Your task to perform on an android device: Go to Reddit.com Image 0: 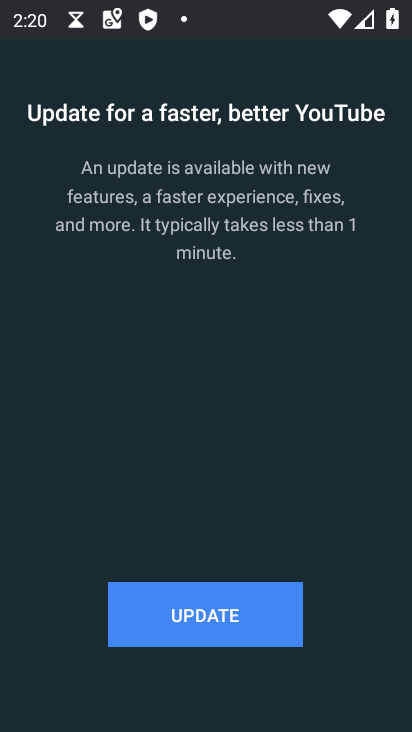
Step 0: press back button
Your task to perform on an android device: Go to Reddit.com Image 1: 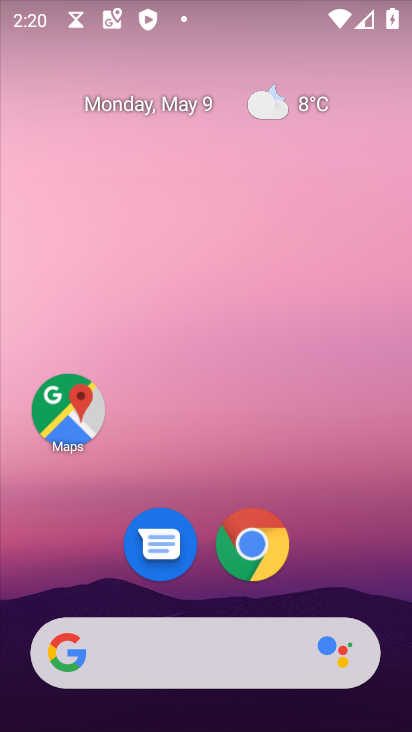
Step 1: click (231, 563)
Your task to perform on an android device: Go to Reddit.com Image 2: 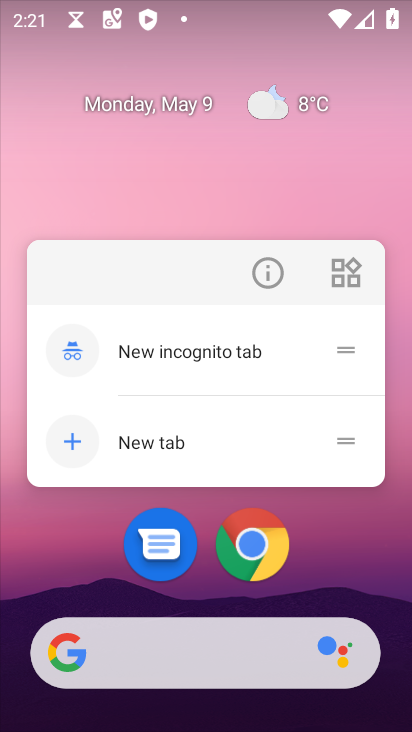
Step 2: click (291, 563)
Your task to perform on an android device: Go to Reddit.com Image 3: 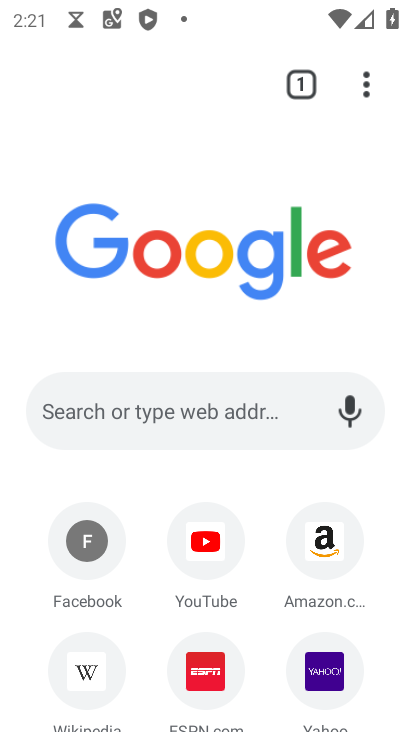
Step 3: click (195, 404)
Your task to perform on an android device: Go to Reddit.com Image 4: 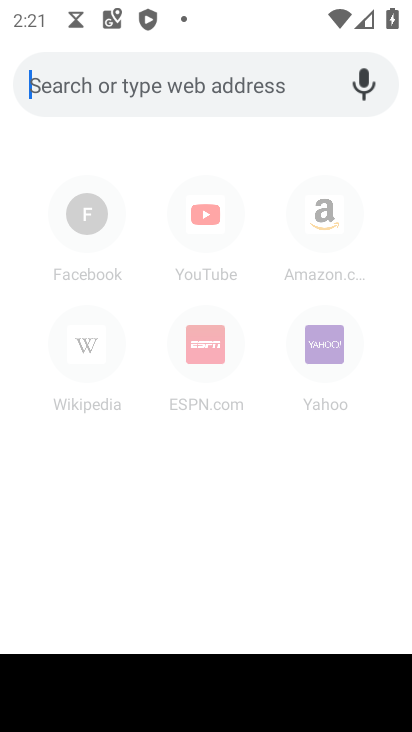
Step 4: type "reddit .com"
Your task to perform on an android device: Go to Reddit.com Image 5: 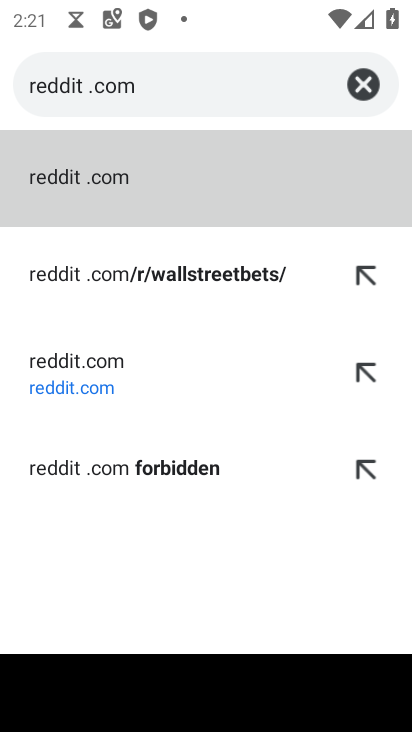
Step 5: click (112, 364)
Your task to perform on an android device: Go to Reddit.com Image 6: 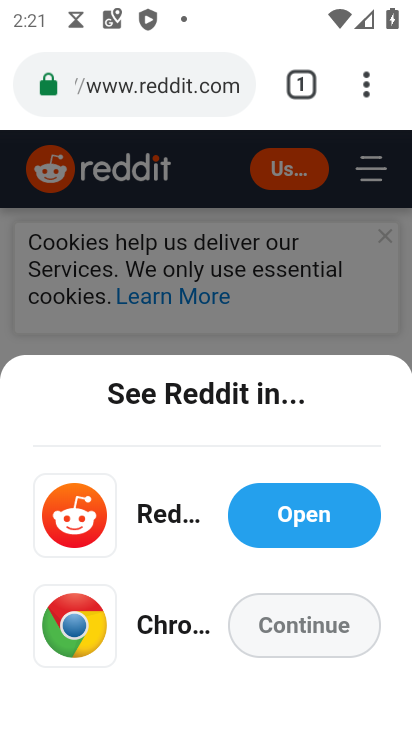
Step 6: click (266, 628)
Your task to perform on an android device: Go to Reddit.com Image 7: 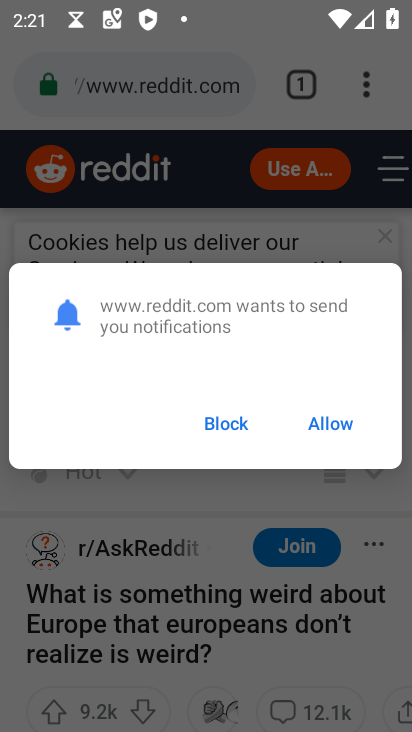
Step 7: drag from (266, 628) to (287, 262)
Your task to perform on an android device: Go to Reddit.com Image 8: 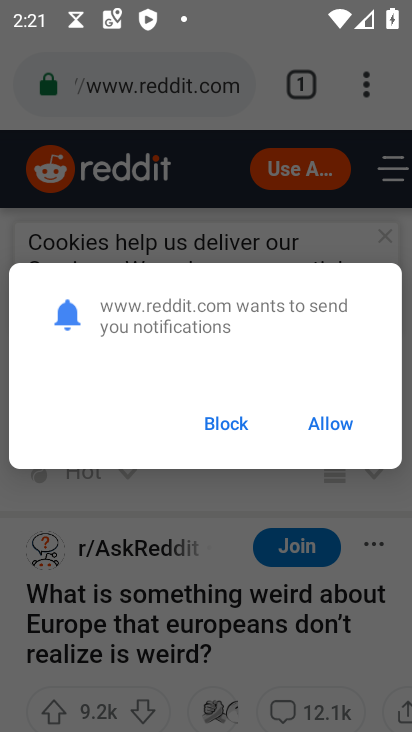
Step 8: click (348, 420)
Your task to perform on an android device: Go to Reddit.com Image 9: 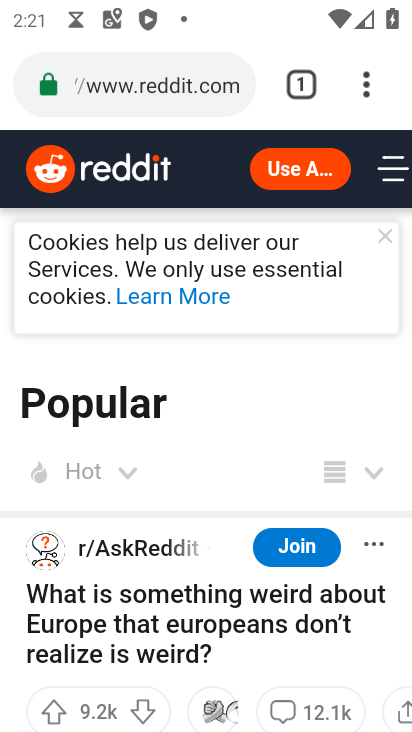
Step 9: task complete